Your task to perform on an android device: Open internet settings Image 0: 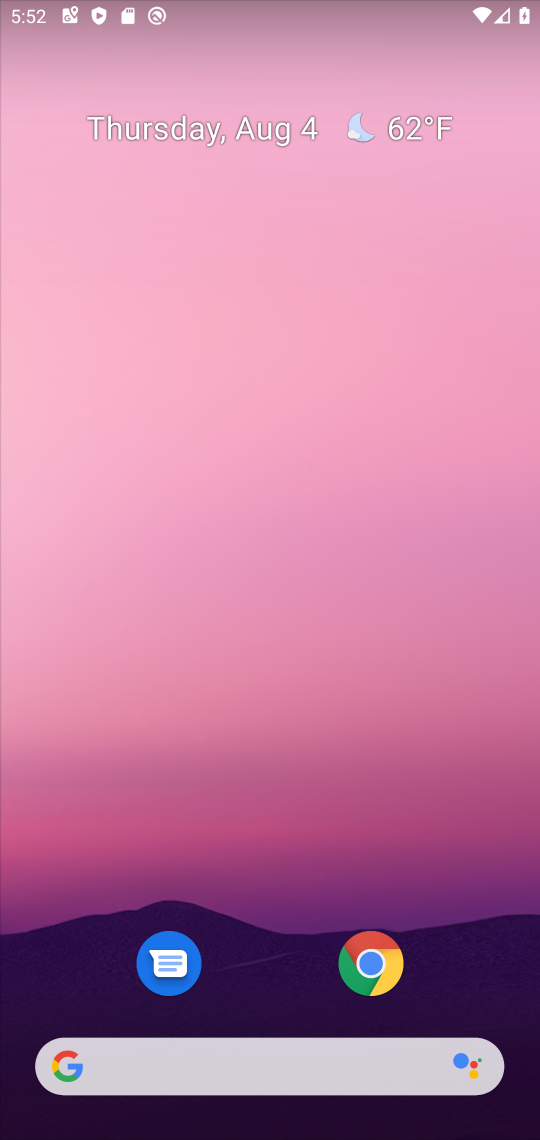
Step 0: drag from (292, 826) to (237, 81)
Your task to perform on an android device: Open internet settings Image 1: 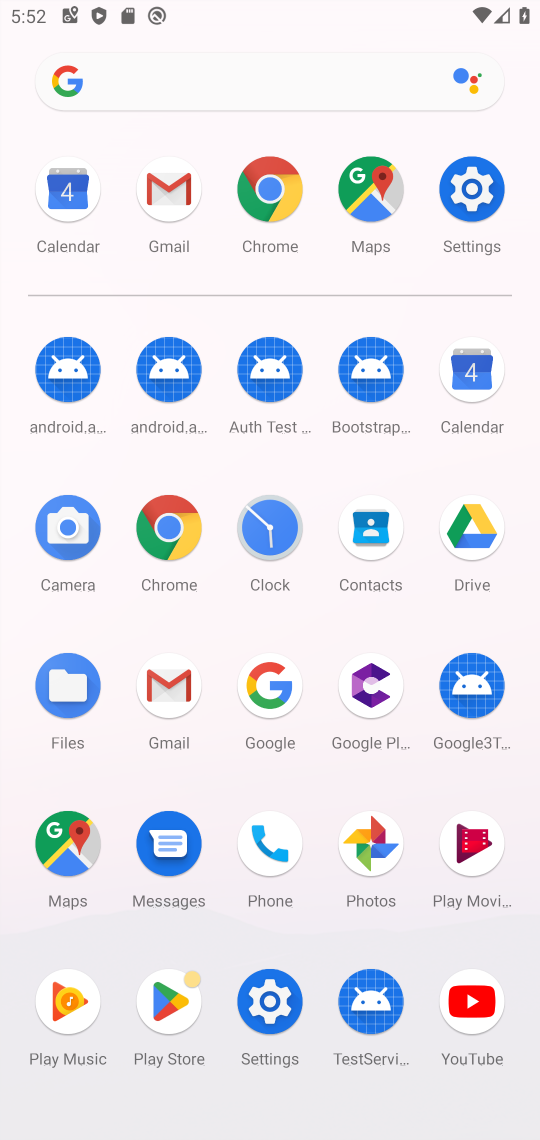
Step 1: click (477, 183)
Your task to perform on an android device: Open internet settings Image 2: 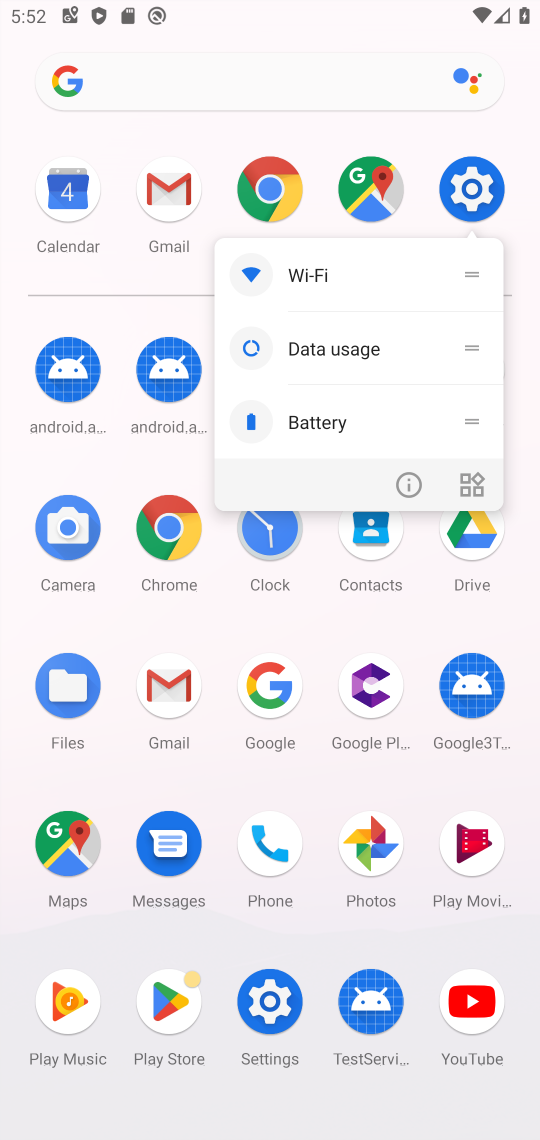
Step 2: click (467, 192)
Your task to perform on an android device: Open internet settings Image 3: 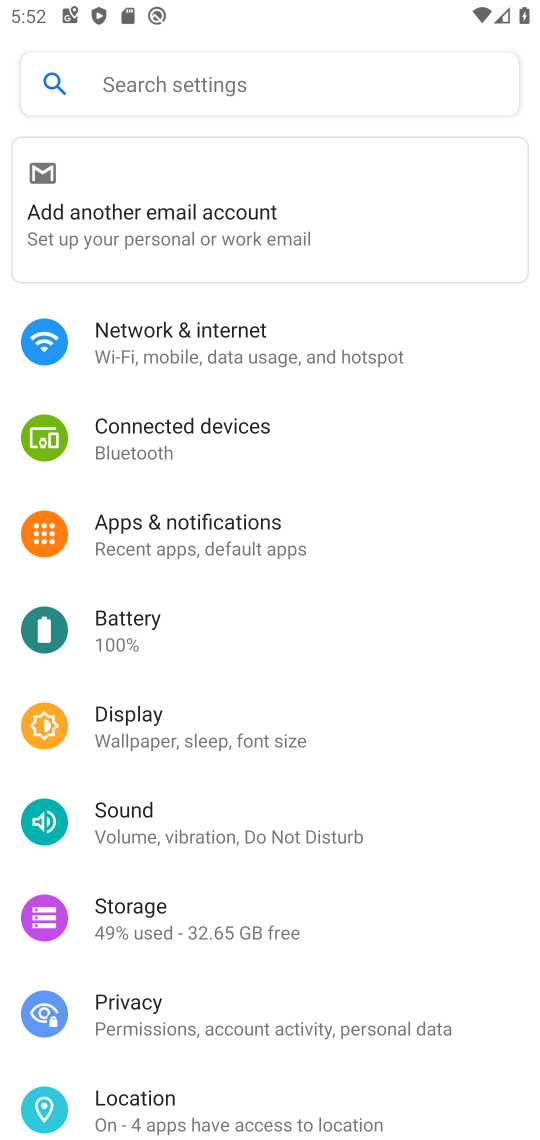
Step 3: click (187, 333)
Your task to perform on an android device: Open internet settings Image 4: 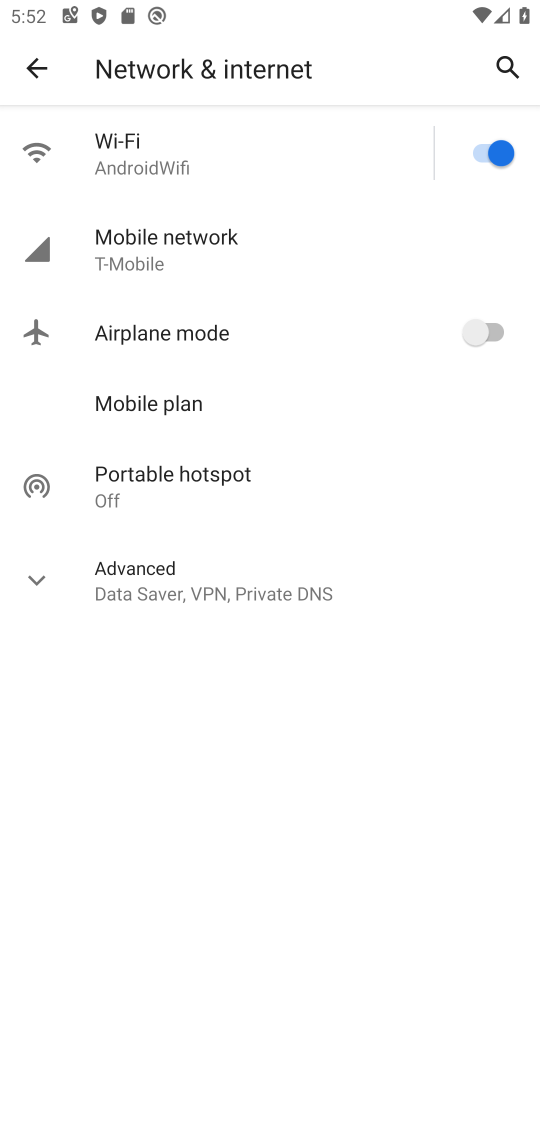
Step 4: task complete